Your task to perform on an android device: Go to Google Image 0: 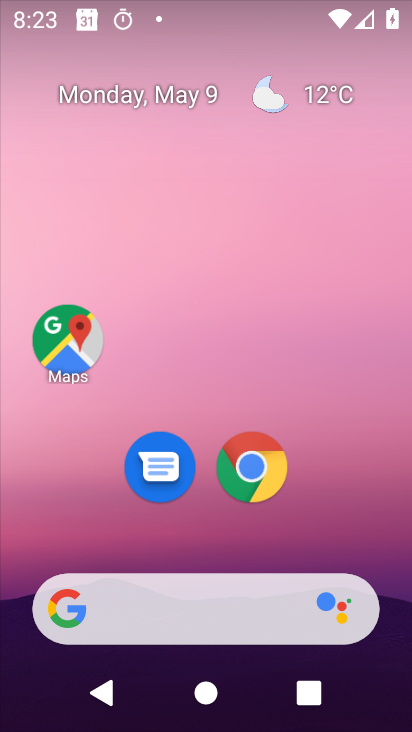
Step 0: drag from (346, 567) to (327, 11)
Your task to perform on an android device: Go to Google Image 1: 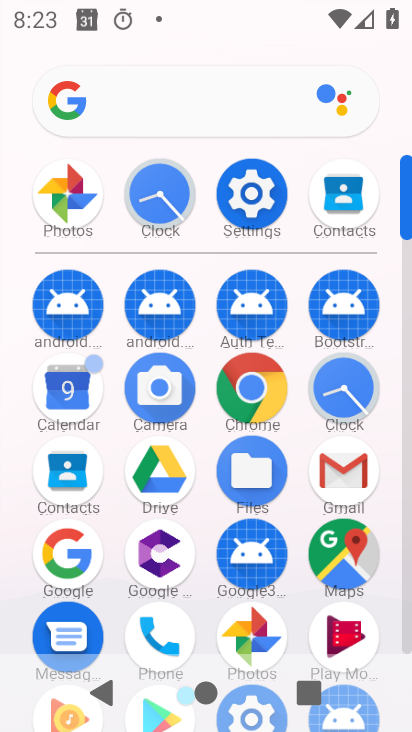
Step 1: click (60, 555)
Your task to perform on an android device: Go to Google Image 2: 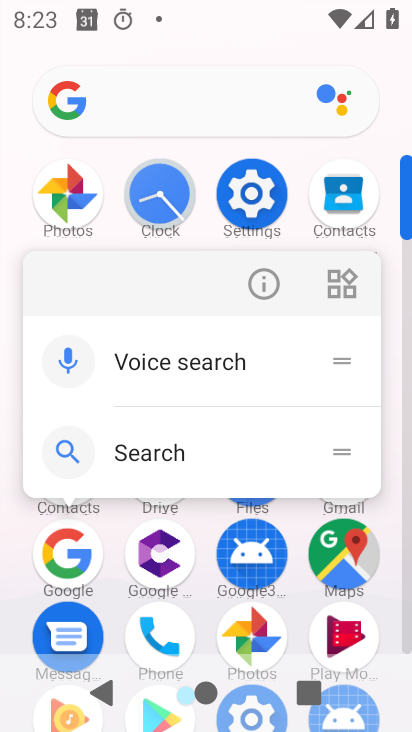
Step 2: click (60, 555)
Your task to perform on an android device: Go to Google Image 3: 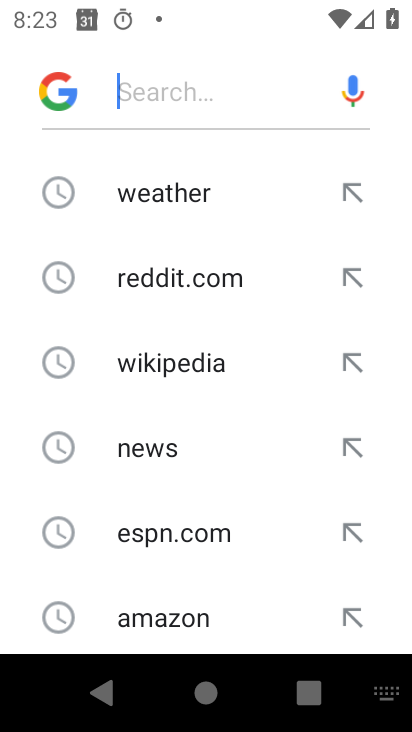
Step 3: task complete